Your task to perform on an android device: turn on notifications settings in the gmail app Image 0: 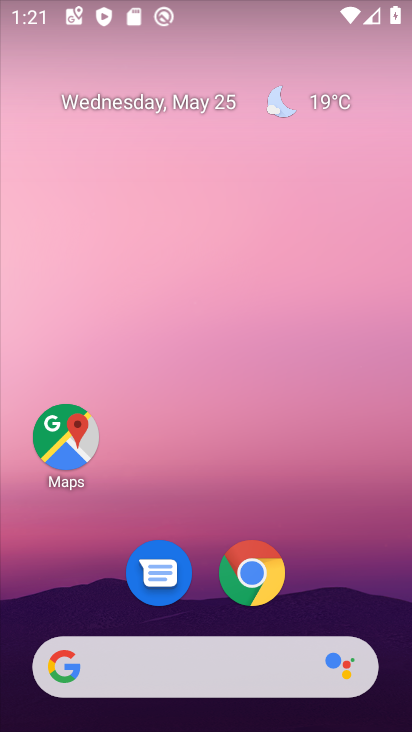
Step 0: drag from (373, 611) to (359, 31)
Your task to perform on an android device: turn on notifications settings in the gmail app Image 1: 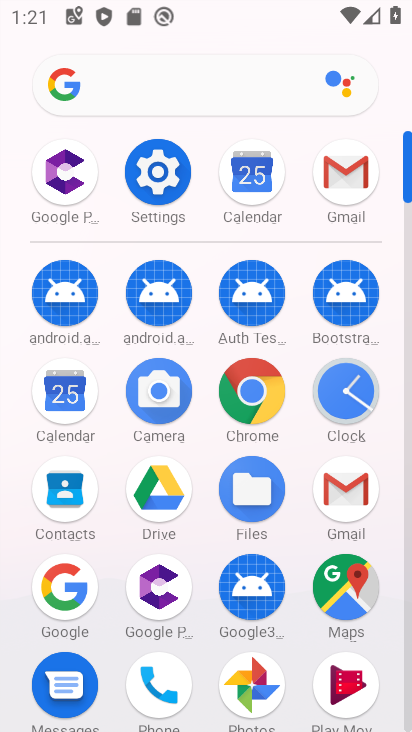
Step 1: click (407, 692)
Your task to perform on an android device: turn on notifications settings in the gmail app Image 2: 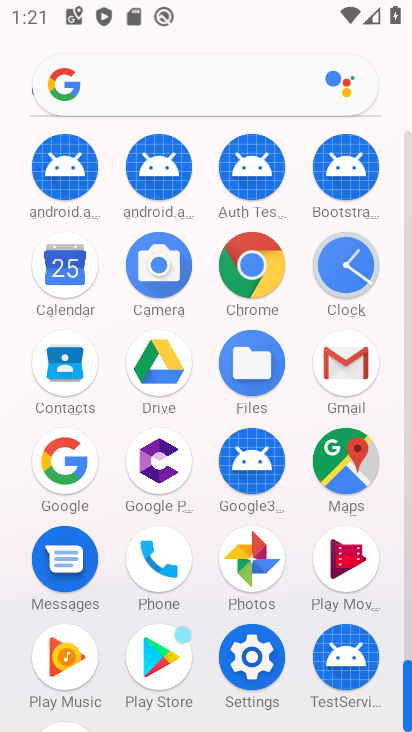
Step 2: click (346, 365)
Your task to perform on an android device: turn on notifications settings in the gmail app Image 3: 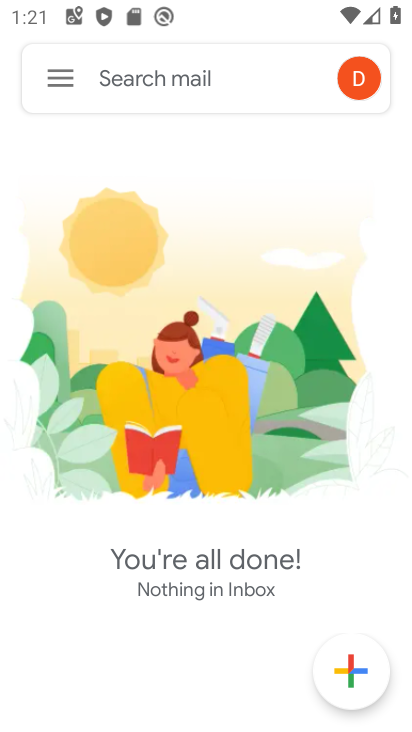
Step 3: click (57, 75)
Your task to perform on an android device: turn on notifications settings in the gmail app Image 4: 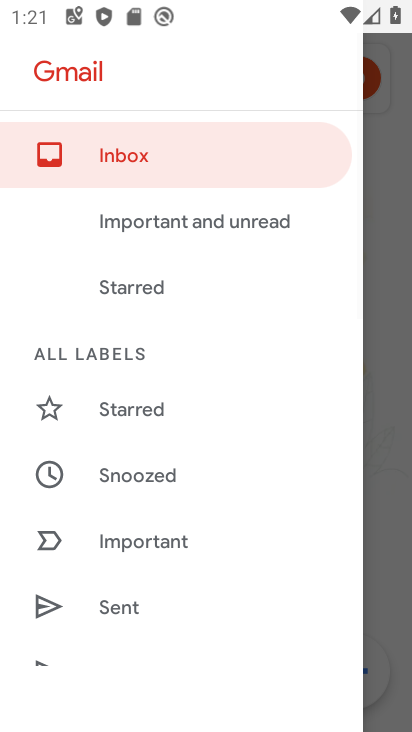
Step 4: drag from (244, 568) to (341, 44)
Your task to perform on an android device: turn on notifications settings in the gmail app Image 5: 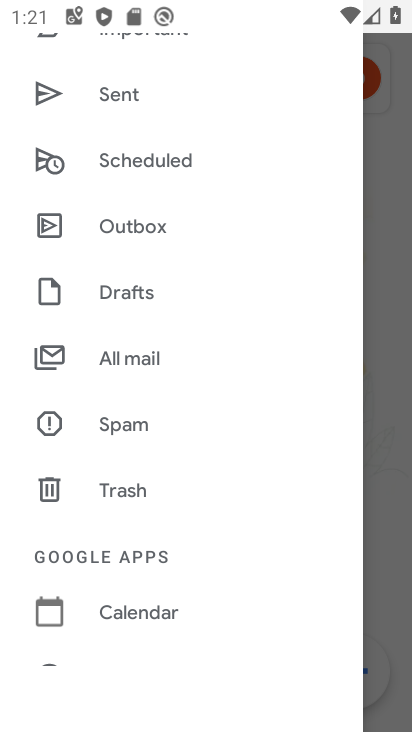
Step 5: drag from (207, 564) to (293, 180)
Your task to perform on an android device: turn on notifications settings in the gmail app Image 6: 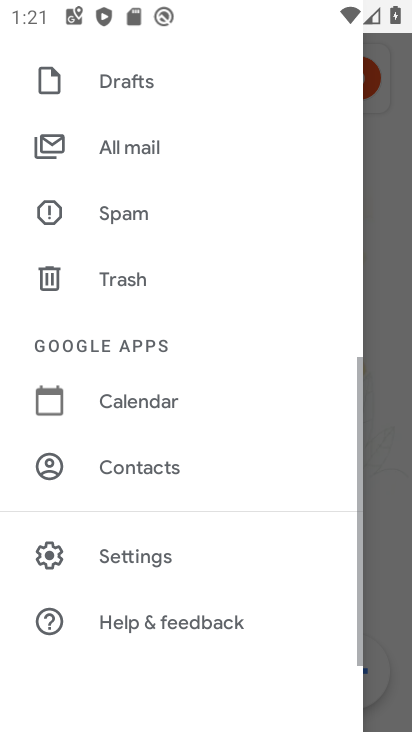
Step 6: click (115, 565)
Your task to perform on an android device: turn on notifications settings in the gmail app Image 7: 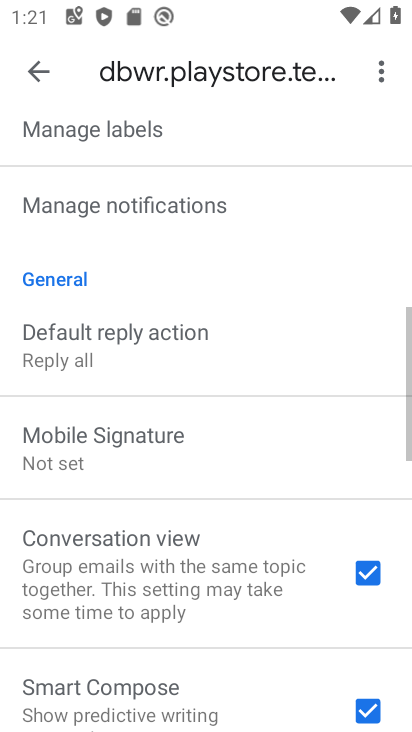
Step 7: drag from (218, 214) to (227, 512)
Your task to perform on an android device: turn on notifications settings in the gmail app Image 8: 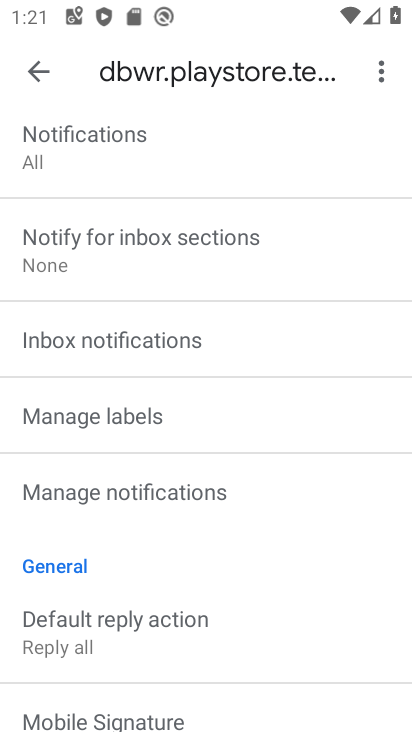
Step 8: click (85, 487)
Your task to perform on an android device: turn on notifications settings in the gmail app Image 9: 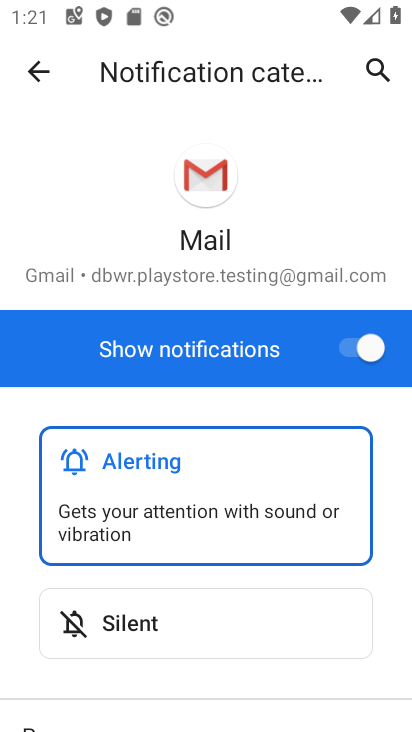
Step 9: task complete